Your task to perform on an android device: change alarm snooze length Image 0: 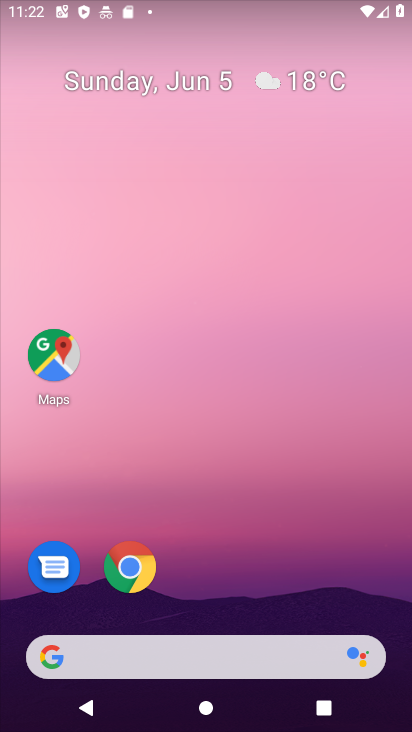
Step 0: drag from (266, 512) to (284, 0)
Your task to perform on an android device: change alarm snooze length Image 1: 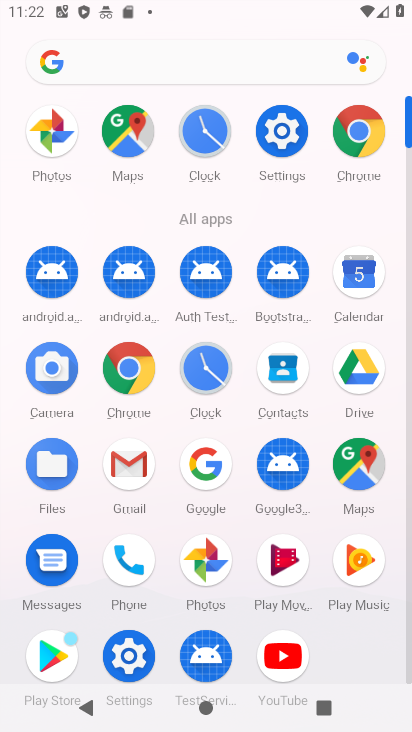
Step 1: click (212, 134)
Your task to perform on an android device: change alarm snooze length Image 2: 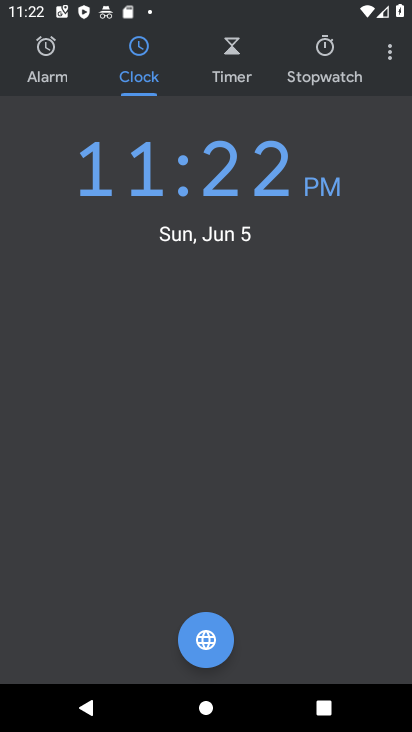
Step 2: click (389, 60)
Your task to perform on an android device: change alarm snooze length Image 3: 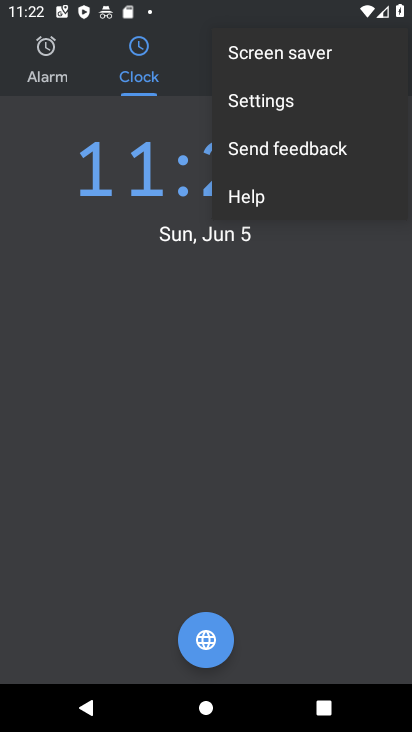
Step 3: click (316, 105)
Your task to perform on an android device: change alarm snooze length Image 4: 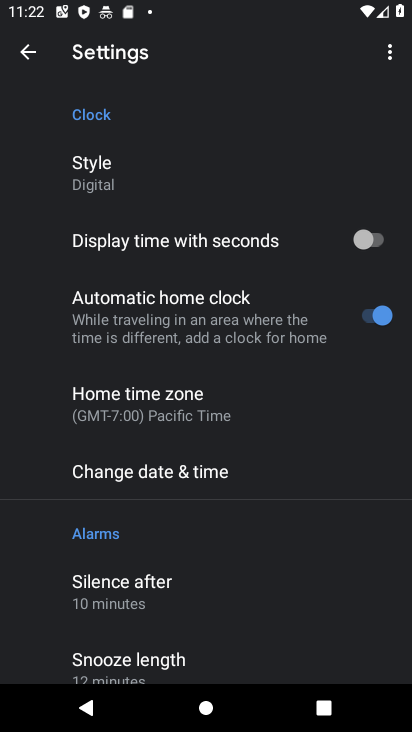
Step 4: drag from (255, 548) to (250, 427)
Your task to perform on an android device: change alarm snooze length Image 5: 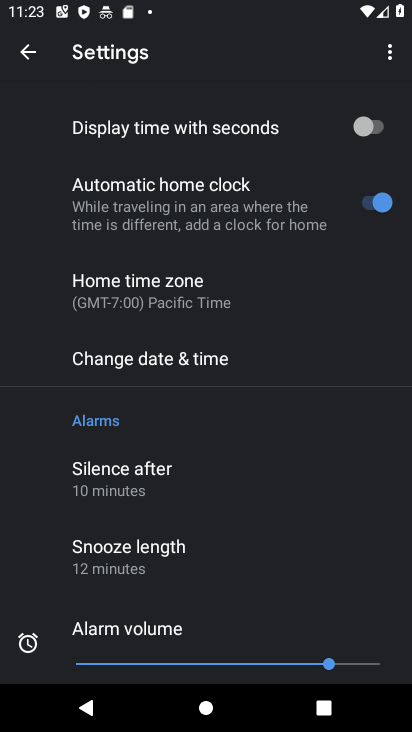
Step 5: click (177, 550)
Your task to perform on an android device: change alarm snooze length Image 6: 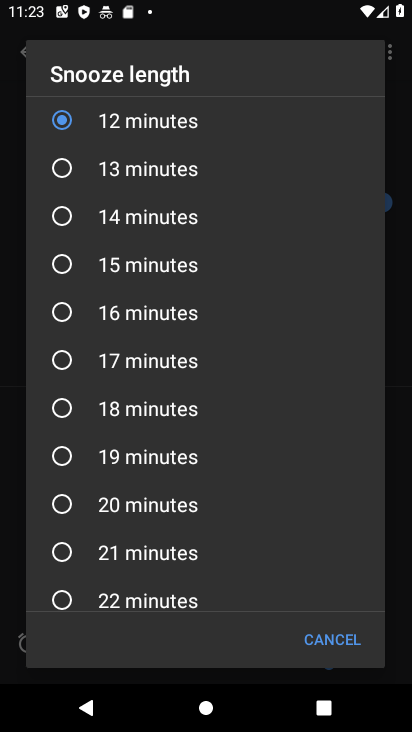
Step 6: click (85, 220)
Your task to perform on an android device: change alarm snooze length Image 7: 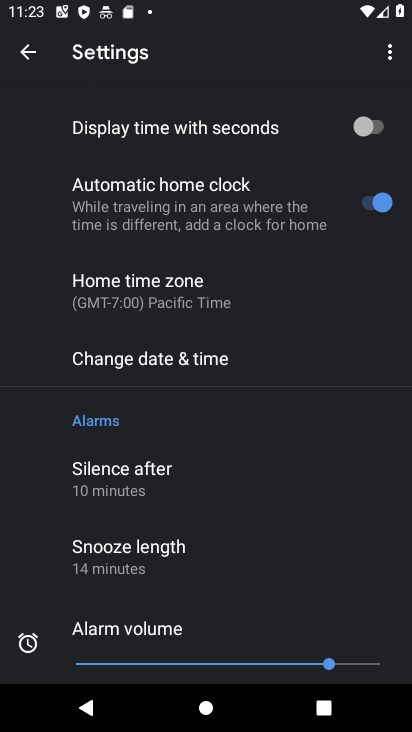
Step 7: task complete